Your task to perform on an android device: Go to sound settings Image 0: 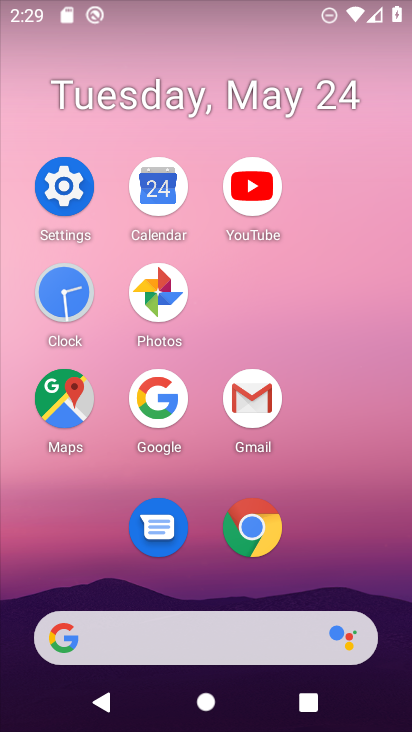
Step 0: click (97, 197)
Your task to perform on an android device: Go to sound settings Image 1: 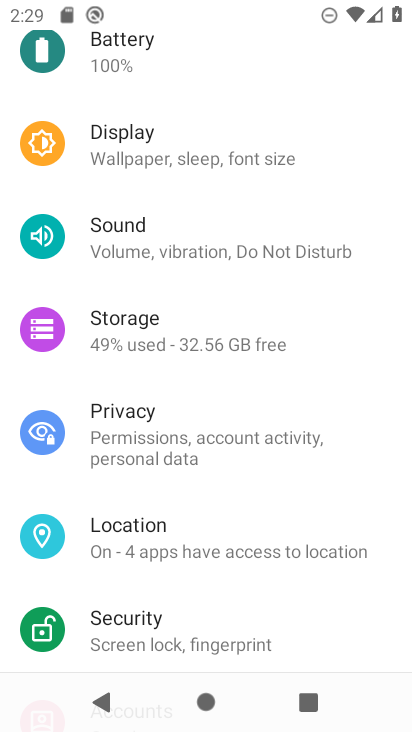
Step 1: click (250, 233)
Your task to perform on an android device: Go to sound settings Image 2: 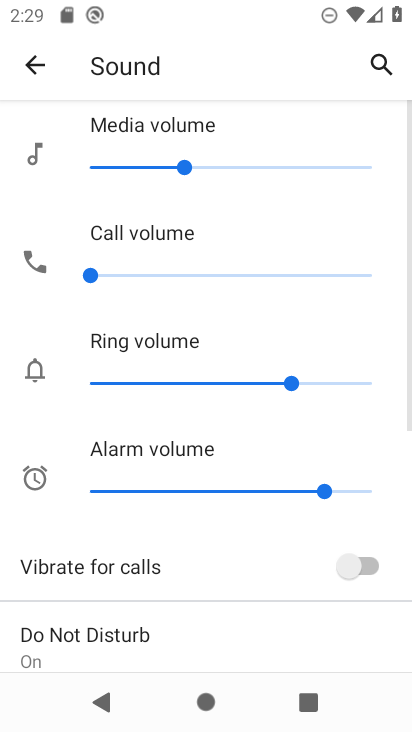
Step 2: task complete